Your task to perform on an android device: check out phone information Image 0: 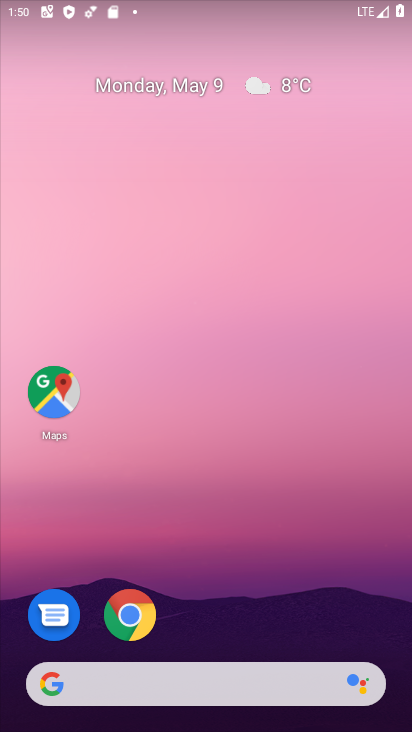
Step 0: drag from (373, 618) to (342, 47)
Your task to perform on an android device: check out phone information Image 1: 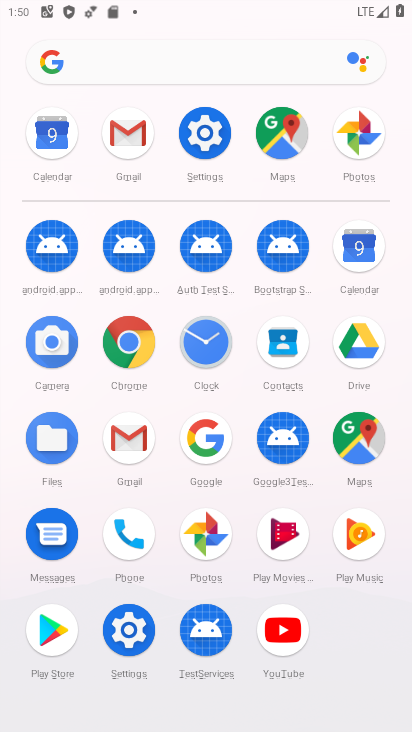
Step 1: click (128, 627)
Your task to perform on an android device: check out phone information Image 2: 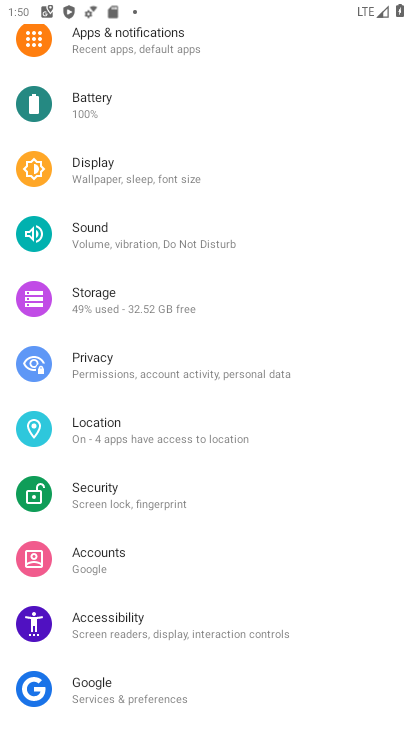
Step 2: drag from (314, 668) to (283, 235)
Your task to perform on an android device: check out phone information Image 3: 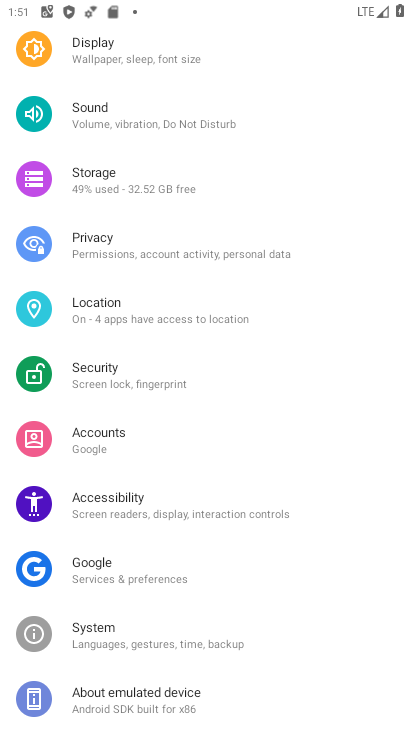
Step 3: click (110, 694)
Your task to perform on an android device: check out phone information Image 4: 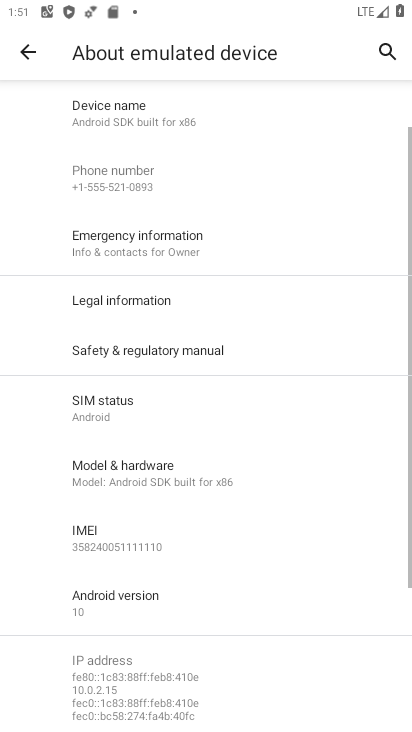
Step 4: task complete